Your task to perform on an android device: Clear all items from cart on walmart.com. Search for "bose soundlink" on walmart.com, select the first entry, add it to the cart, then select checkout. Image 0: 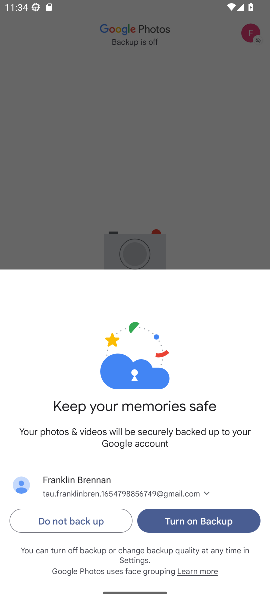
Step 0: press home button
Your task to perform on an android device: Clear all items from cart on walmart.com. Search for "bose soundlink" on walmart.com, select the first entry, add it to the cart, then select checkout. Image 1: 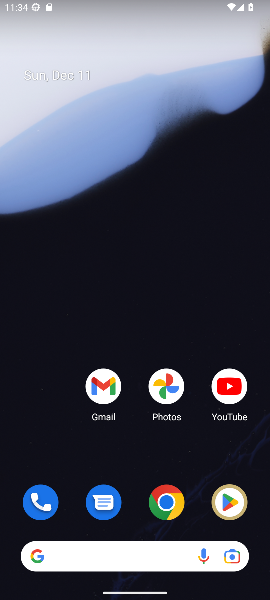
Step 1: click (144, 545)
Your task to perform on an android device: Clear all items from cart on walmart.com. Search for "bose soundlink" on walmart.com, select the first entry, add it to the cart, then select checkout. Image 2: 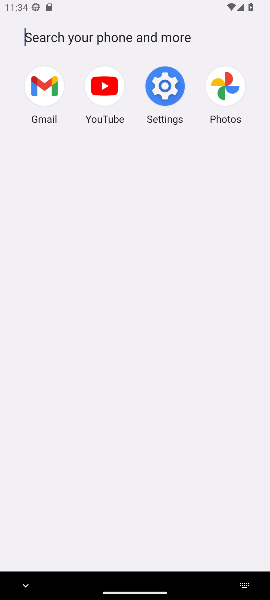
Step 2: type "walmart"
Your task to perform on an android device: Clear all items from cart on walmart.com. Search for "bose soundlink" on walmart.com, select the first entry, add it to the cart, then select checkout. Image 3: 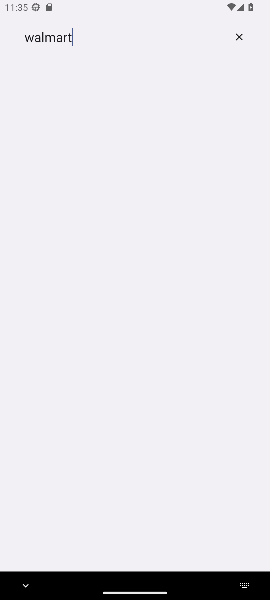
Step 3: press home button
Your task to perform on an android device: Clear all items from cart on walmart.com. Search for "bose soundlink" on walmart.com, select the first entry, add it to the cart, then select checkout. Image 4: 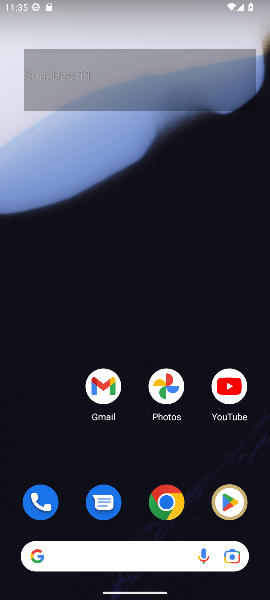
Step 4: click (99, 564)
Your task to perform on an android device: Clear all items from cart on walmart.com. Search for "bose soundlink" on walmart.com, select the first entry, add it to the cart, then select checkout. Image 5: 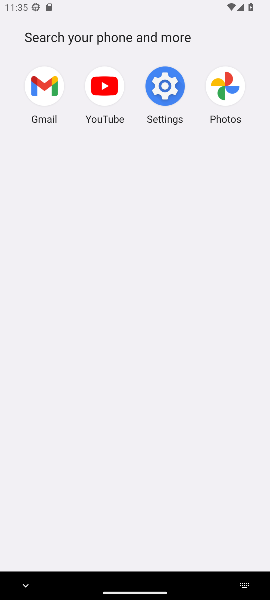
Step 5: press home button
Your task to perform on an android device: Clear all items from cart on walmart.com. Search for "bose soundlink" on walmart.com, select the first entry, add it to the cart, then select checkout. Image 6: 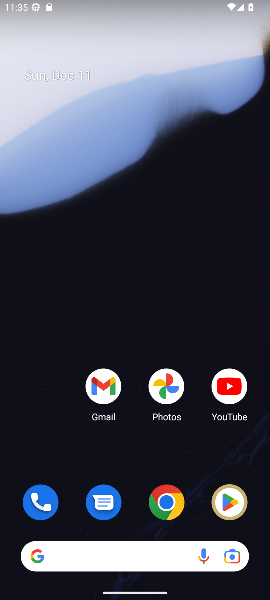
Step 6: click (140, 567)
Your task to perform on an android device: Clear all items from cart on walmart.com. Search for "bose soundlink" on walmart.com, select the first entry, add it to the cart, then select checkout. Image 7: 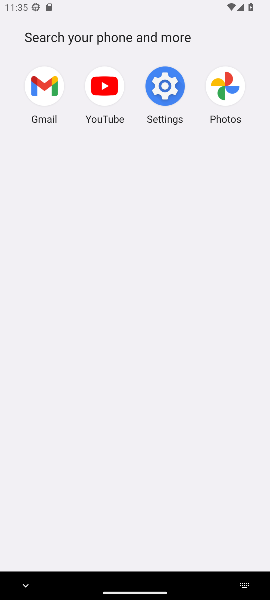
Step 7: press home button
Your task to perform on an android device: Clear all items from cart on walmart.com. Search for "bose soundlink" on walmart.com, select the first entry, add it to the cart, then select checkout. Image 8: 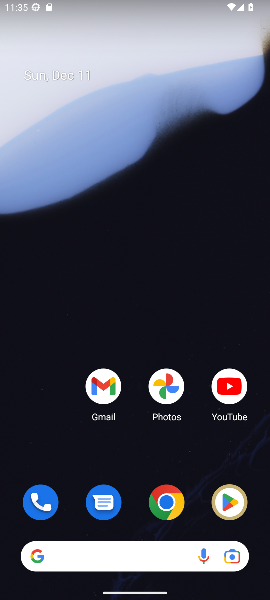
Step 8: click (145, 558)
Your task to perform on an android device: Clear all items from cart on walmart.com. Search for "bose soundlink" on walmart.com, select the first entry, add it to the cart, then select checkout. Image 9: 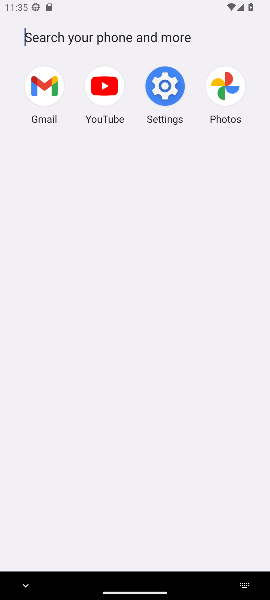
Step 9: press home button
Your task to perform on an android device: Clear all items from cart on walmart.com. Search for "bose soundlink" on walmart.com, select the first entry, add it to the cart, then select checkout. Image 10: 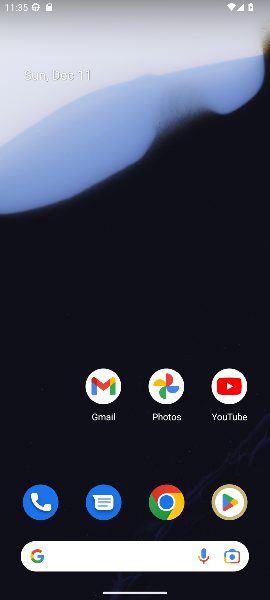
Step 10: click (161, 508)
Your task to perform on an android device: Clear all items from cart on walmart.com. Search for "bose soundlink" on walmart.com, select the first entry, add it to the cart, then select checkout. Image 11: 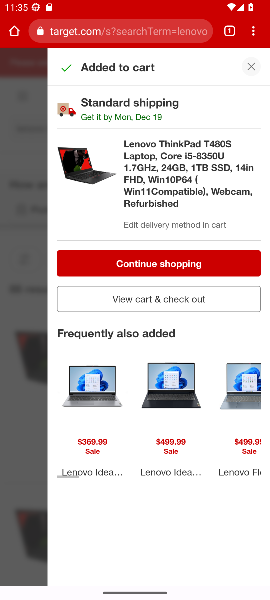
Step 11: click (254, 65)
Your task to perform on an android device: Clear all items from cart on walmart.com. Search for "bose soundlink" on walmart.com, select the first entry, add it to the cart, then select checkout. Image 12: 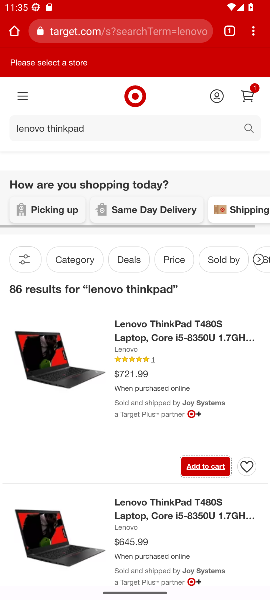
Step 12: click (140, 26)
Your task to perform on an android device: Clear all items from cart on walmart.com. Search for "bose soundlink" on walmart.com, select the first entry, add it to the cart, then select checkout. Image 13: 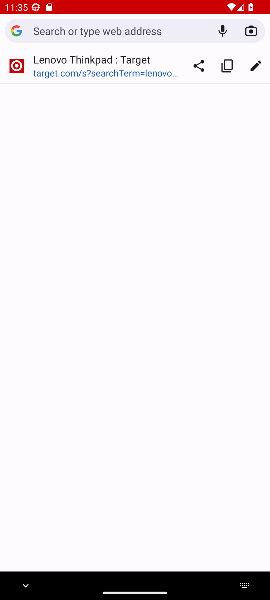
Step 13: type "walmart"
Your task to perform on an android device: Clear all items from cart on walmart.com. Search for "bose soundlink" on walmart.com, select the first entry, add it to the cart, then select checkout. Image 14: 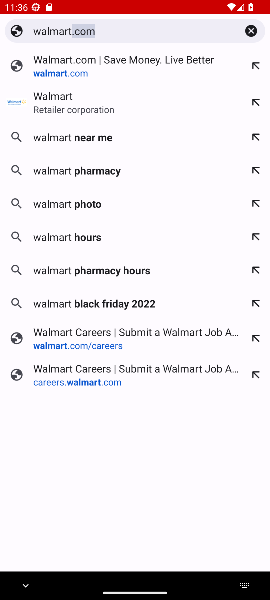
Step 14: click (115, 67)
Your task to perform on an android device: Clear all items from cart on walmart.com. Search for "bose soundlink" on walmart.com, select the first entry, add it to the cart, then select checkout. Image 15: 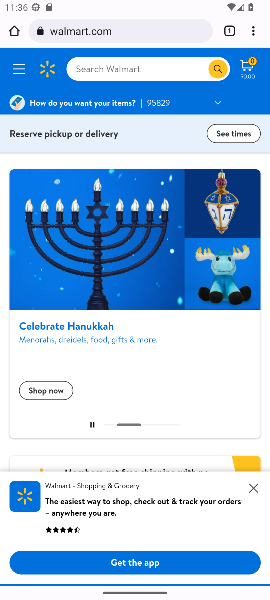
Step 15: click (256, 495)
Your task to perform on an android device: Clear all items from cart on walmart.com. Search for "bose soundlink" on walmart.com, select the first entry, add it to the cart, then select checkout. Image 16: 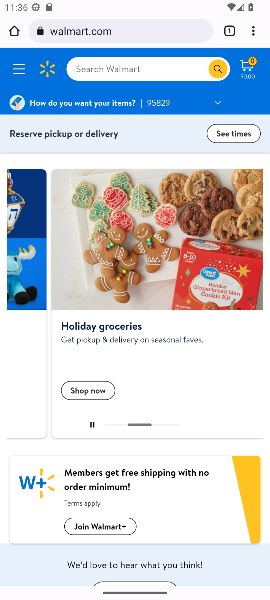
Step 16: click (160, 70)
Your task to perform on an android device: Clear all items from cart on walmart.com. Search for "bose soundlink" on walmart.com, select the first entry, add it to the cart, then select checkout. Image 17: 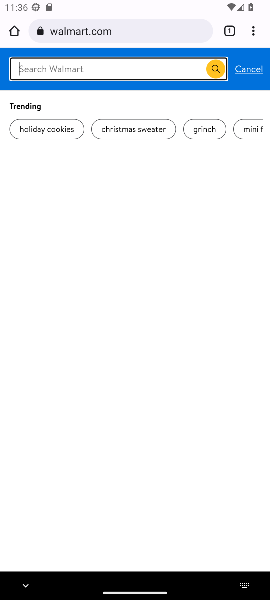
Step 17: type "bose soundlink"
Your task to perform on an android device: Clear all items from cart on walmart.com. Search for "bose soundlink" on walmart.com, select the first entry, add it to the cart, then select checkout. Image 18: 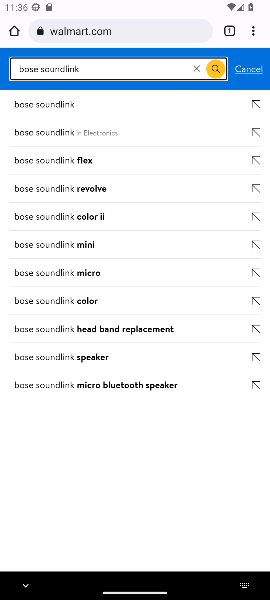
Step 18: click (95, 104)
Your task to perform on an android device: Clear all items from cart on walmart.com. Search for "bose soundlink" on walmart.com, select the first entry, add it to the cart, then select checkout. Image 19: 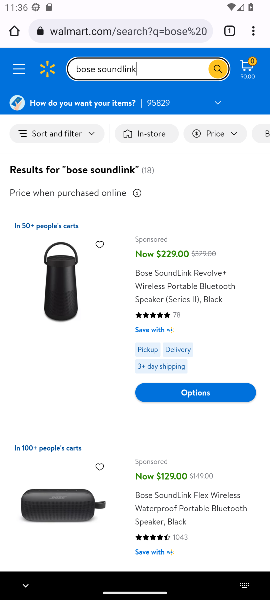
Step 19: click (211, 384)
Your task to perform on an android device: Clear all items from cart on walmart.com. Search for "bose soundlink" on walmart.com, select the first entry, add it to the cart, then select checkout. Image 20: 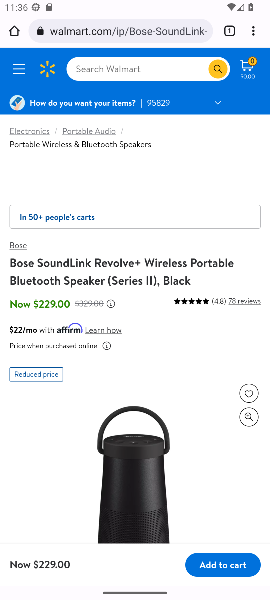
Step 20: click (216, 564)
Your task to perform on an android device: Clear all items from cart on walmart.com. Search for "bose soundlink" on walmart.com, select the first entry, add it to the cart, then select checkout. Image 21: 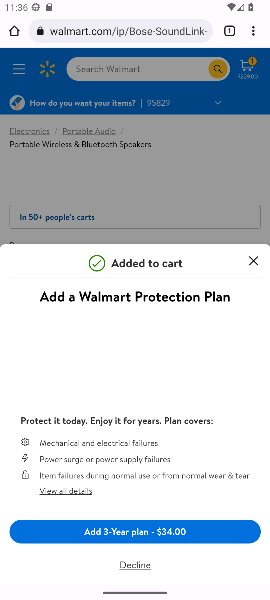
Step 21: task complete